Your task to perform on an android device: open a new tab in the chrome app Image 0: 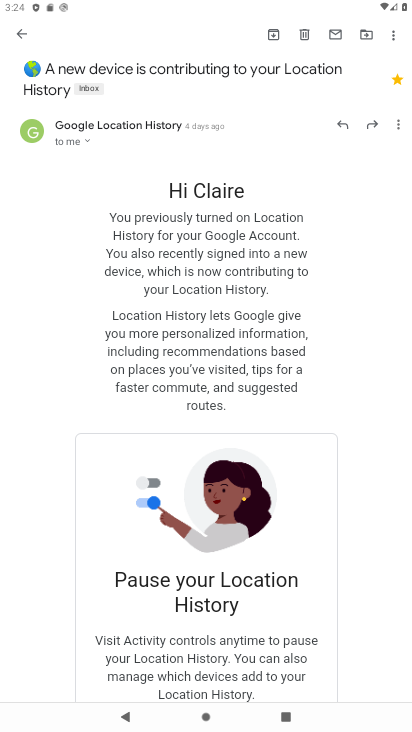
Step 0: press home button
Your task to perform on an android device: open a new tab in the chrome app Image 1: 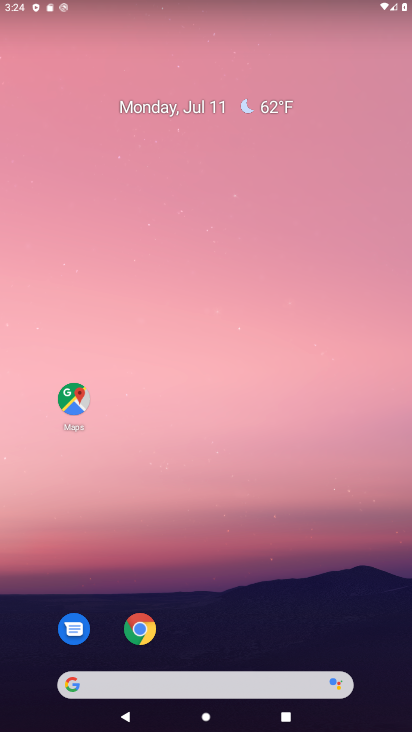
Step 1: click (149, 630)
Your task to perform on an android device: open a new tab in the chrome app Image 2: 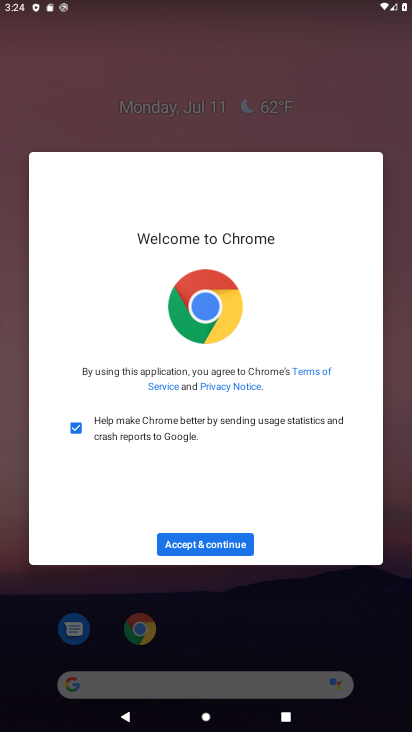
Step 2: click (222, 540)
Your task to perform on an android device: open a new tab in the chrome app Image 3: 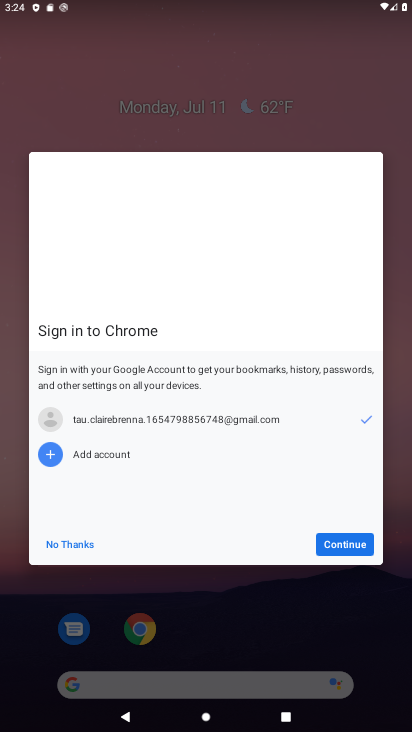
Step 3: click (344, 552)
Your task to perform on an android device: open a new tab in the chrome app Image 4: 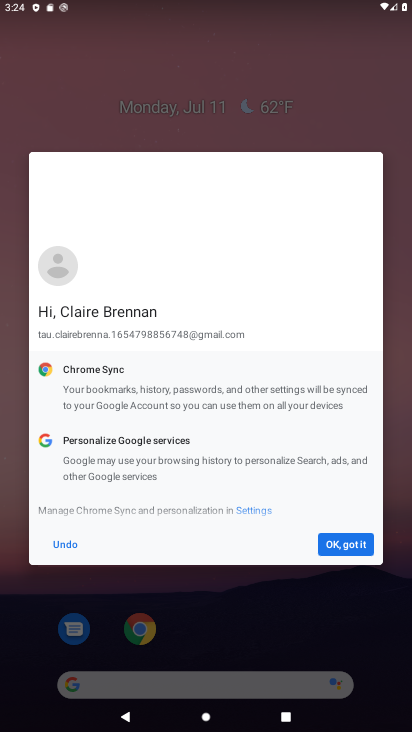
Step 4: click (344, 552)
Your task to perform on an android device: open a new tab in the chrome app Image 5: 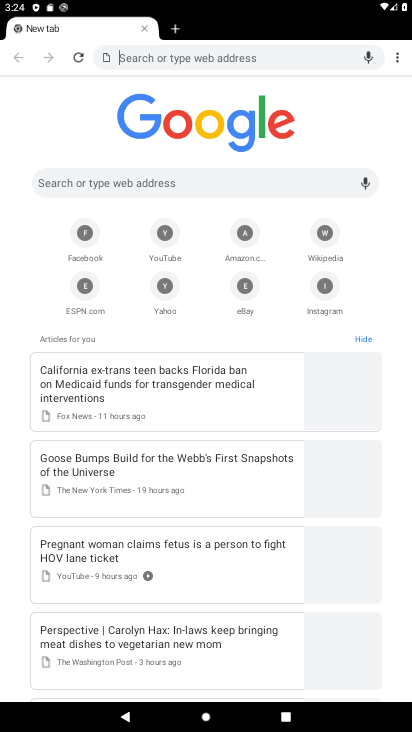
Step 5: click (392, 57)
Your task to perform on an android device: open a new tab in the chrome app Image 6: 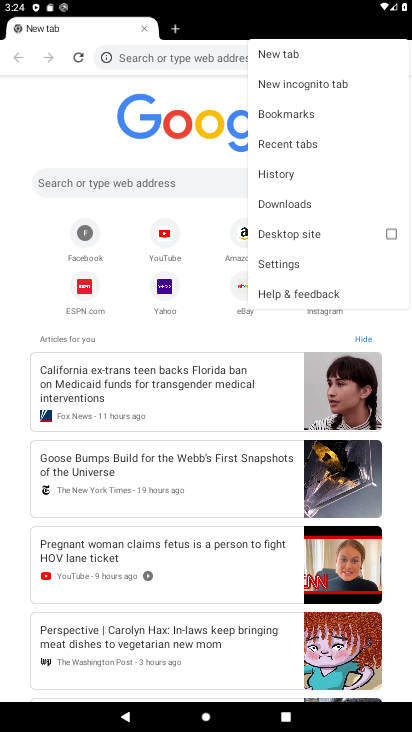
Step 6: click (137, 52)
Your task to perform on an android device: open a new tab in the chrome app Image 7: 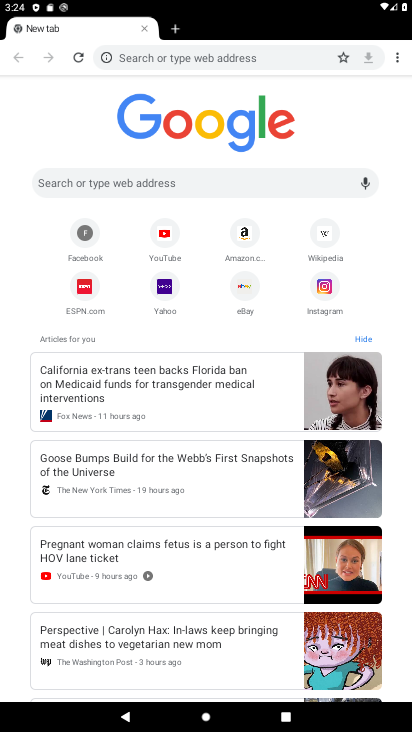
Step 7: task complete